Your task to perform on an android device: Do I have any events tomorrow? Image 0: 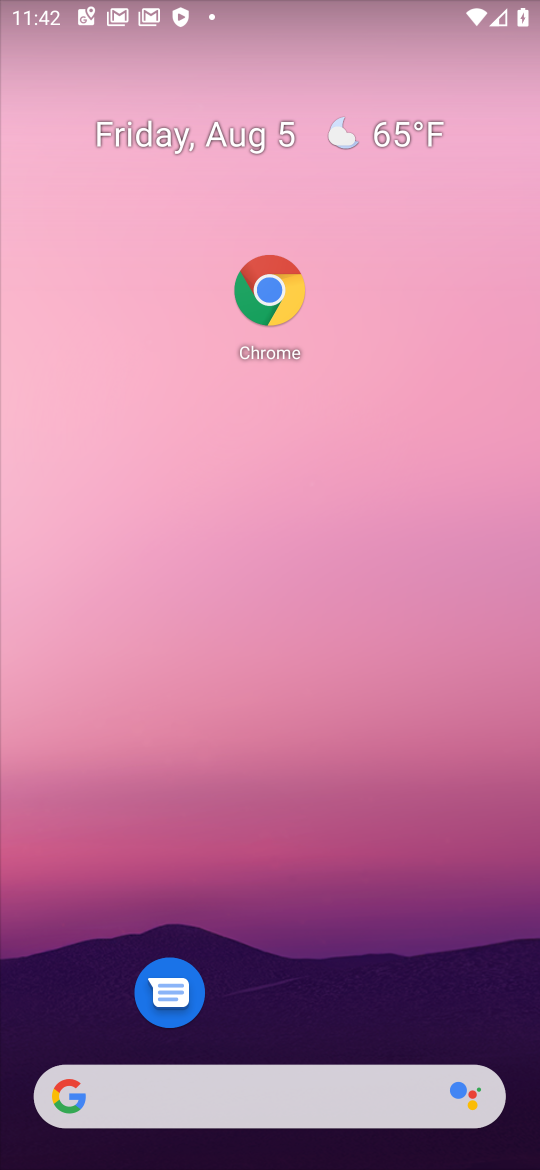
Step 0: drag from (199, 829) to (533, 626)
Your task to perform on an android device: Do I have any events tomorrow? Image 1: 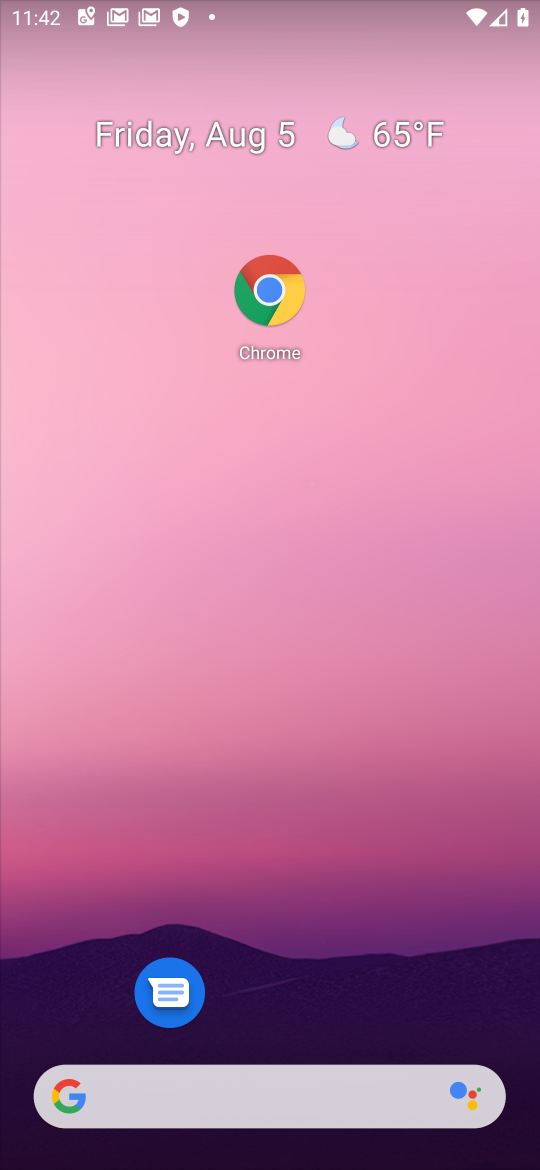
Step 1: drag from (309, 923) to (466, 9)
Your task to perform on an android device: Do I have any events tomorrow? Image 2: 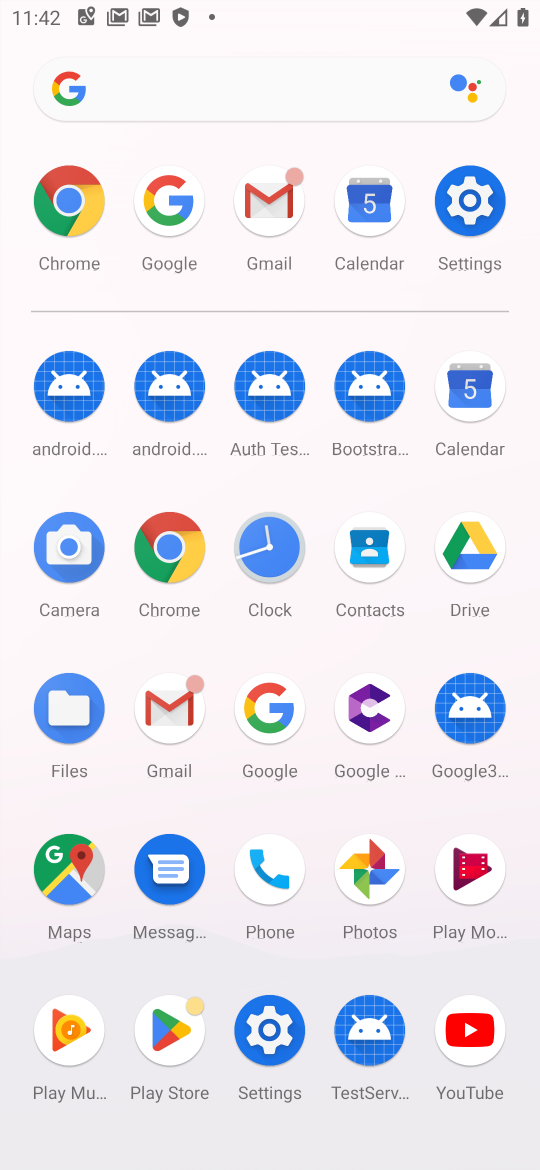
Step 2: click (475, 430)
Your task to perform on an android device: Do I have any events tomorrow? Image 3: 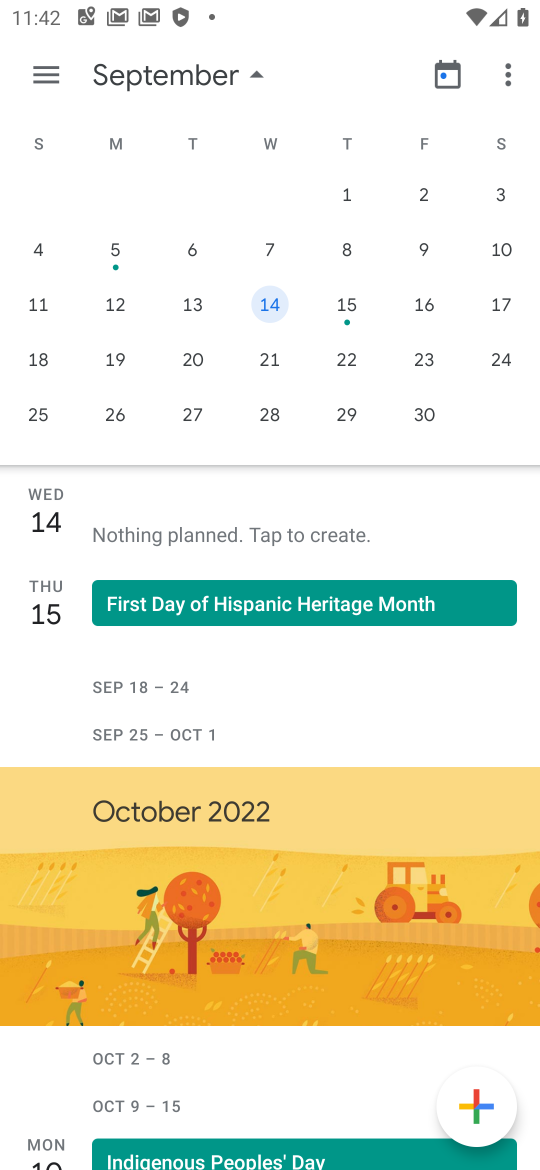
Step 3: click (341, 312)
Your task to perform on an android device: Do I have any events tomorrow? Image 4: 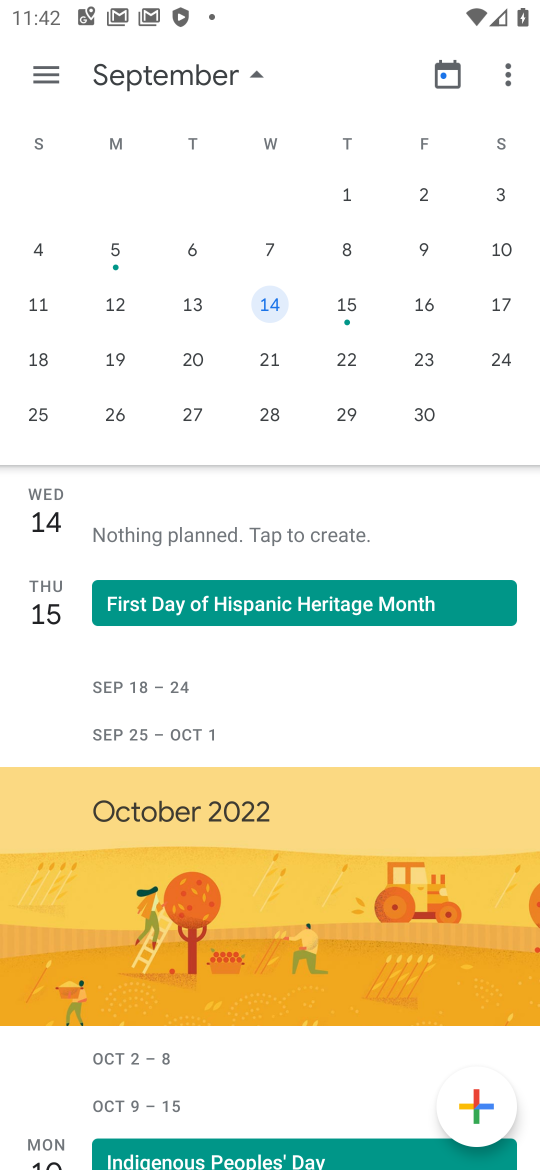
Step 4: click (356, 303)
Your task to perform on an android device: Do I have any events tomorrow? Image 5: 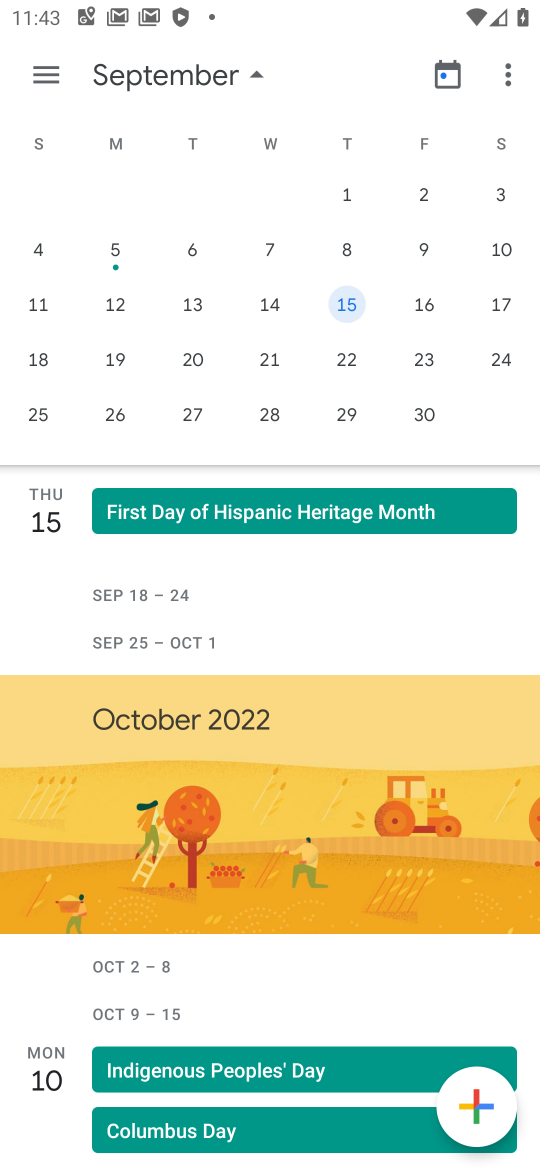
Step 5: task complete